Your task to perform on an android device: visit the assistant section in the google photos Image 0: 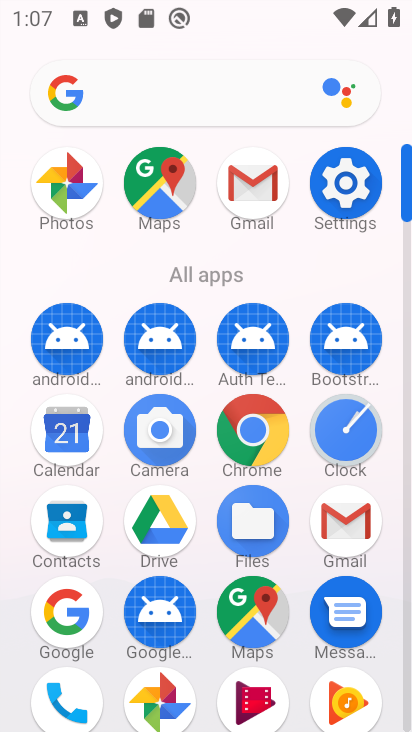
Step 0: drag from (240, 508) to (230, 285)
Your task to perform on an android device: visit the assistant section in the google photos Image 1: 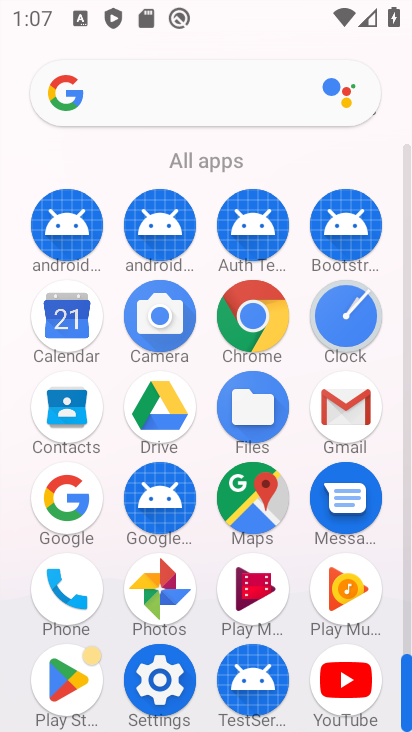
Step 1: click (166, 570)
Your task to perform on an android device: visit the assistant section in the google photos Image 2: 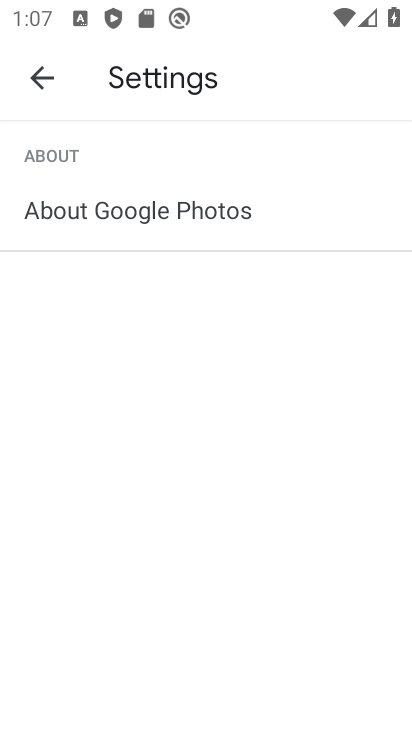
Step 2: click (46, 69)
Your task to perform on an android device: visit the assistant section in the google photos Image 3: 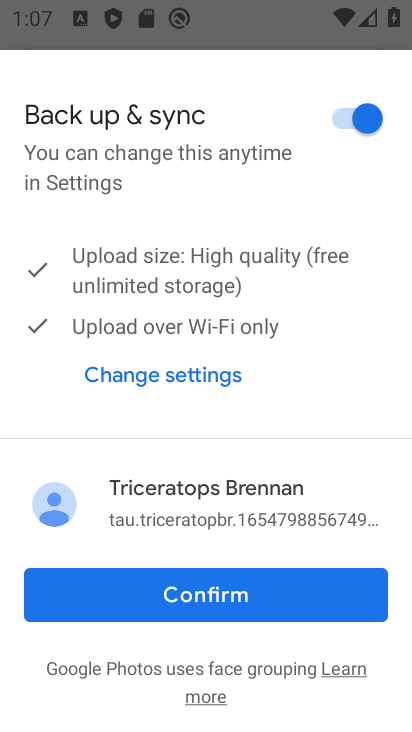
Step 3: click (254, 598)
Your task to perform on an android device: visit the assistant section in the google photos Image 4: 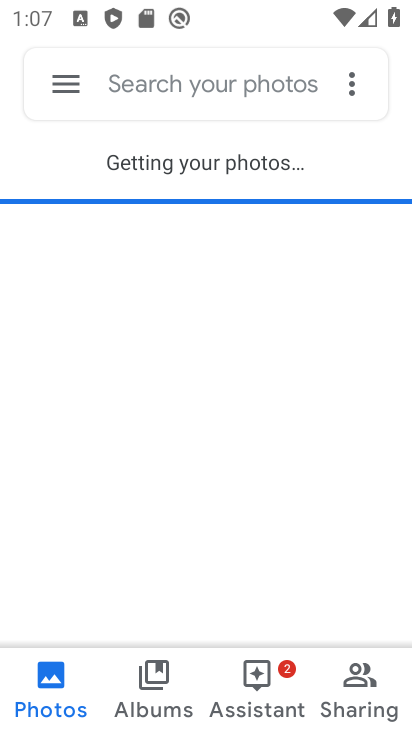
Step 4: click (73, 95)
Your task to perform on an android device: visit the assistant section in the google photos Image 5: 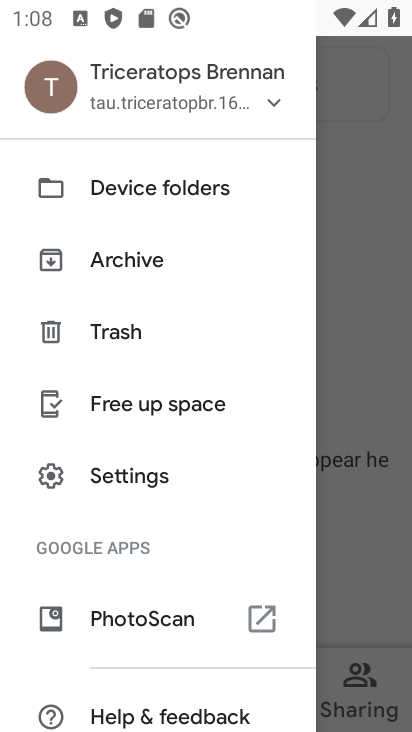
Step 5: click (351, 532)
Your task to perform on an android device: visit the assistant section in the google photos Image 6: 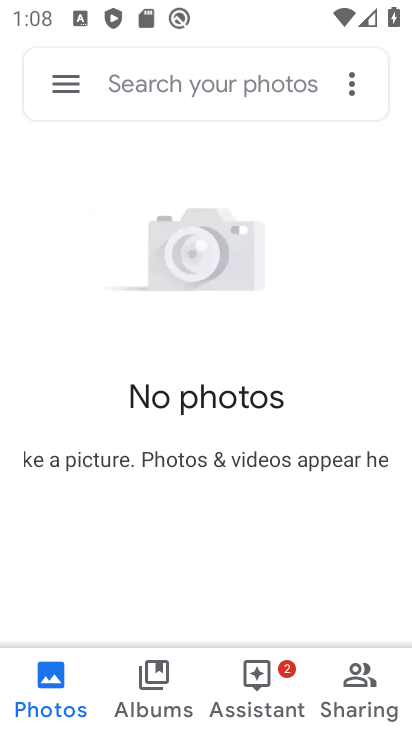
Step 6: click (252, 693)
Your task to perform on an android device: visit the assistant section in the google photos Image 7: 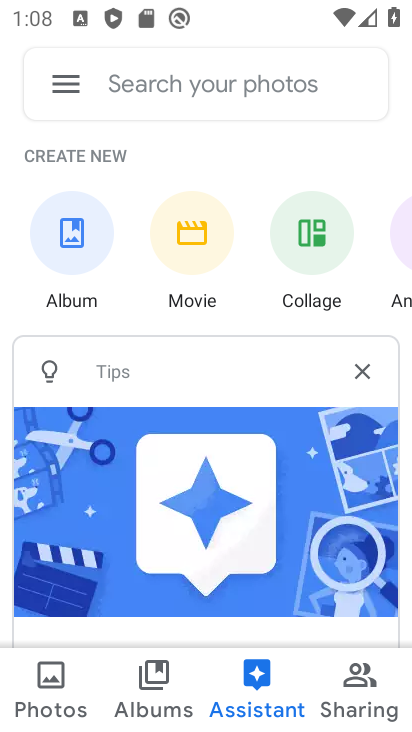
Step 7: task complete